Your task to perform on an android device: toggle sleep mode Image 0: 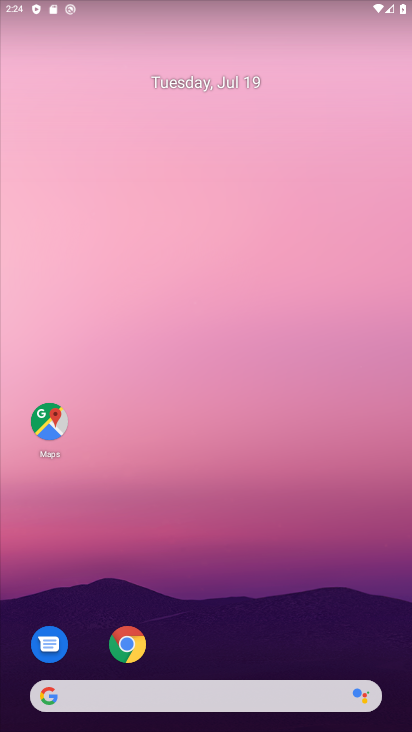
Step 0: drag from (273, 598) to (249, 252)
Your task to perform on an android device: toggle sleep mode Image 1: 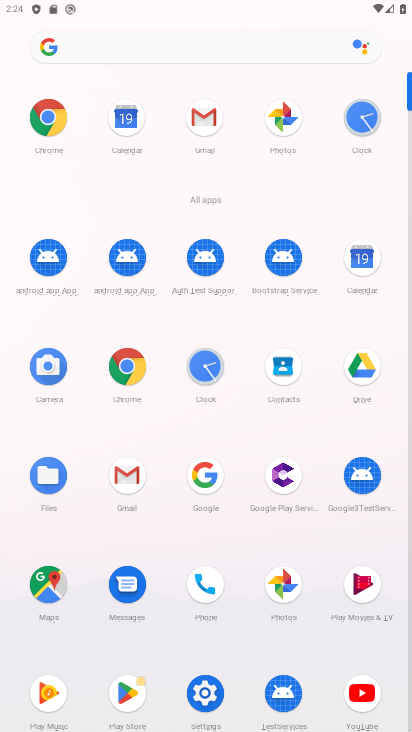
Step 1: click (203, 690)
Your task to perform on an android device: toggle sleep mode Image 2: 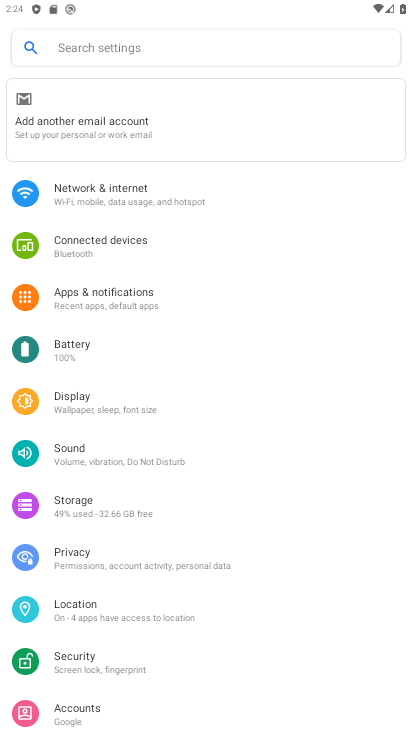
Step 2: click (119, 400)
Your task to perform on an android device: toggle sleep mode Image 3: 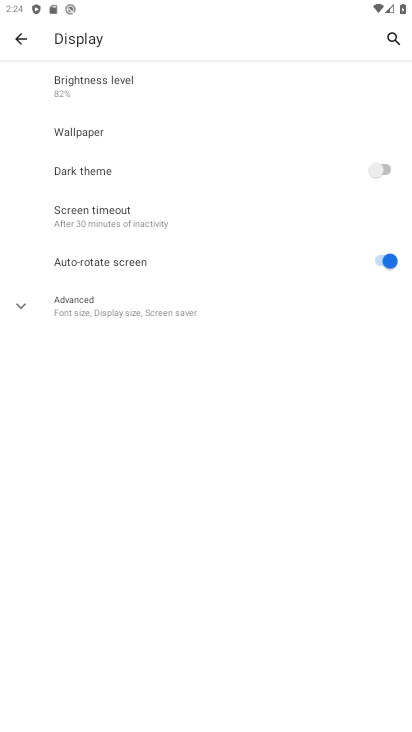
Step 3: click (178, 294)
Your task to perform on an android device: toggle sleep mode Image 4: 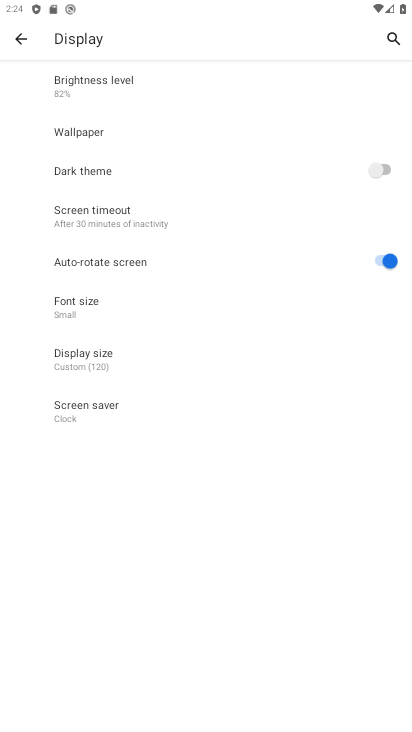
Step 4: task complete